Your task to perform on an android device: Is it going to rain today? Image 0: 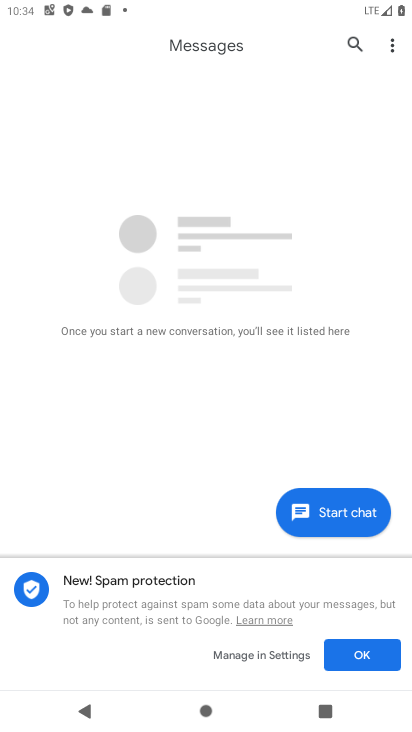
Step 0: press home button
Your task to perform on an android device: Is it going to rain today? Image 1: 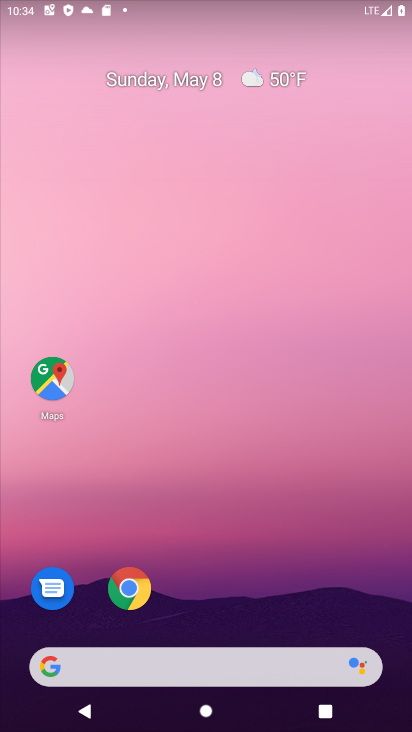
Step 1: click (273, 68)
Your task to perform on an android device: Is it going to rain today? Image 2: 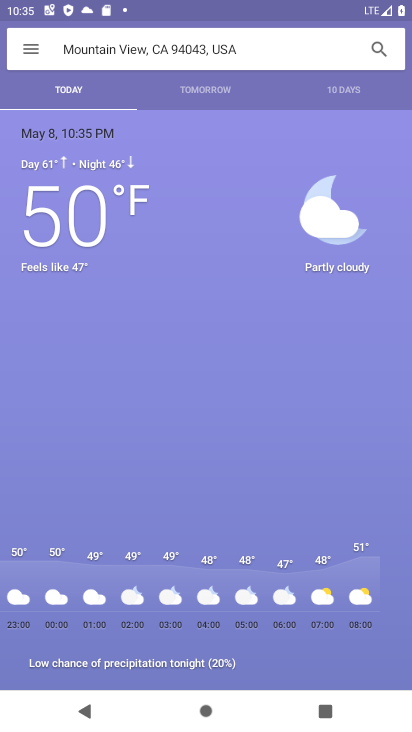
Step 2: task complete